Your task to perform on an android device: Open the map Image 0: 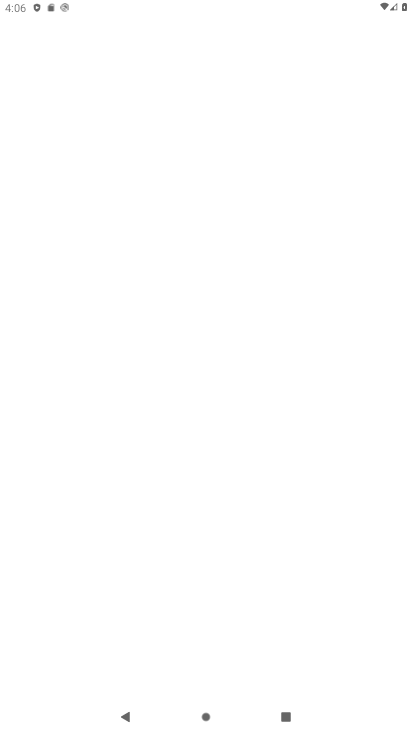
Step 0: drag from (165, 553) to (176, 228)
Your task to perform on an android device: Open the map Image 1: 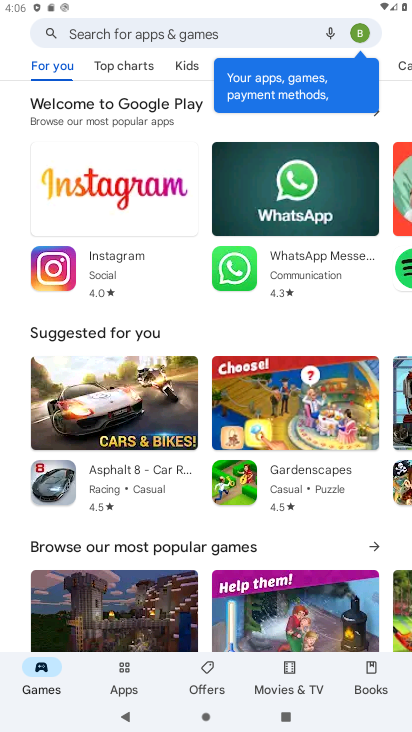
Step 1: press home button
Your task to perform on an android device: Open the map Image 2: 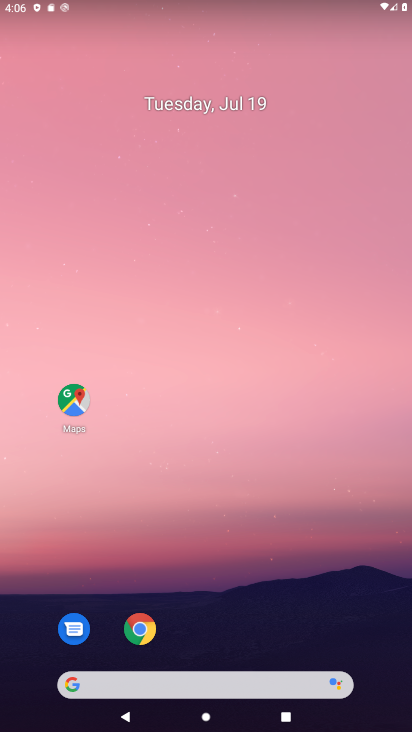
Step 2: drag from (273, 625) to (263, 85)
Your task to perform on an android device: Open the map Image 3: 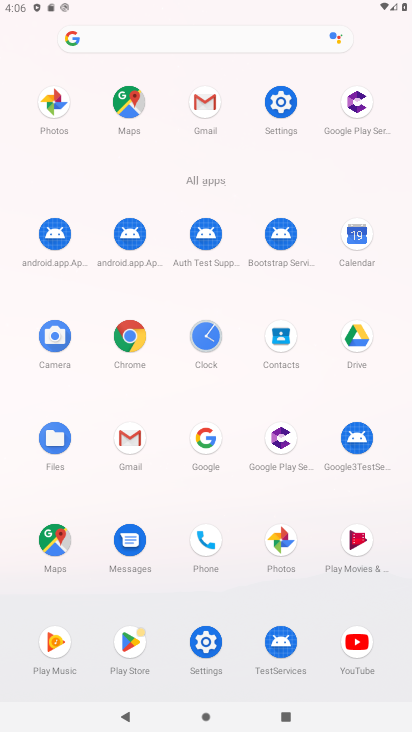
Step 3: click (128, 84)
Your task to perform on an android device: Open the map Image 4: 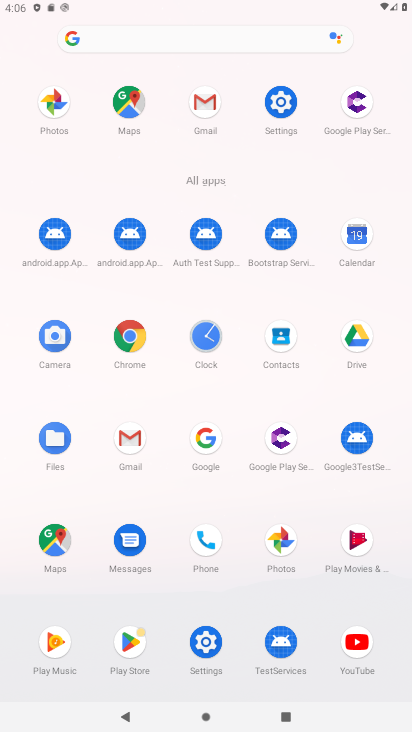
Step 4: click (131, 114)
Your task to perform on an android device: Open the map Image 5: 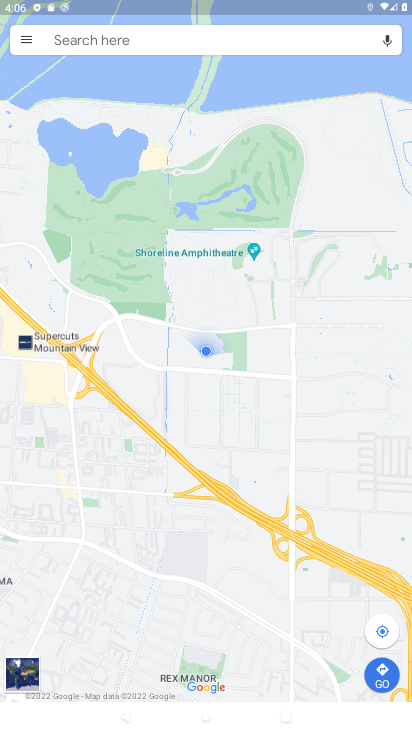
Step 5: task complete